Your task to perform on an android device: Is it going to rain tomorrow? Image 0: 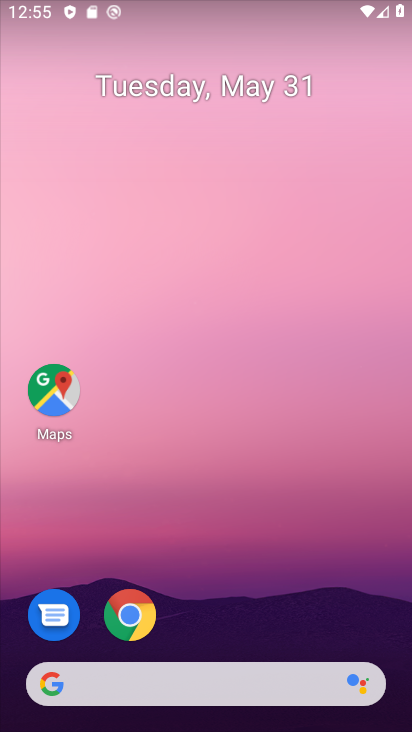
Step 0: drag from (321, 600) to (273, 152)
Your task to perform on an android device: Is it going to rain tomorrow? Image 1: 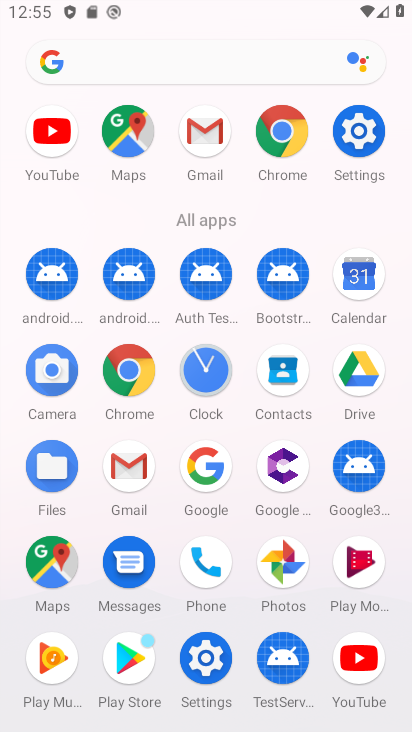
Step 1: click (123, 370)
Your task to perform on an android device: Is it going to rain tomorrow? Image 2: 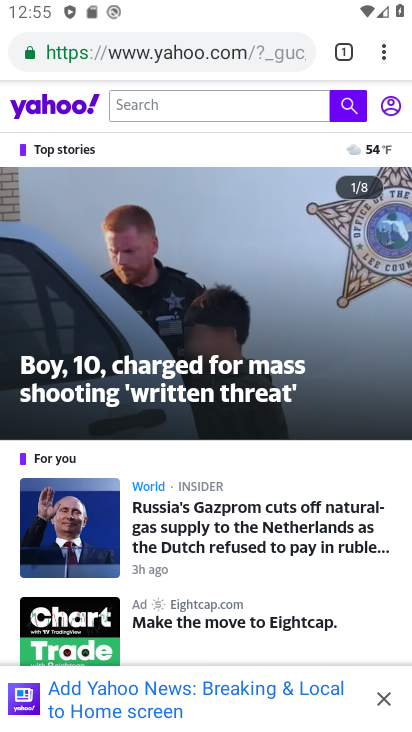
Step 2: click (179, 49)
Your task to perform on an android device: Is it going to rain tomorrow? Image 3: 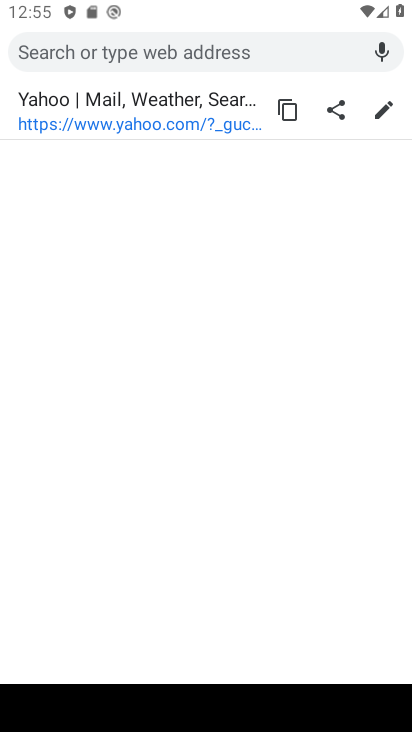
Step 3: type "is it going to rain tomorrow "
Your task to perform on an android device: Is it going to rain tomorrow? Image 4: 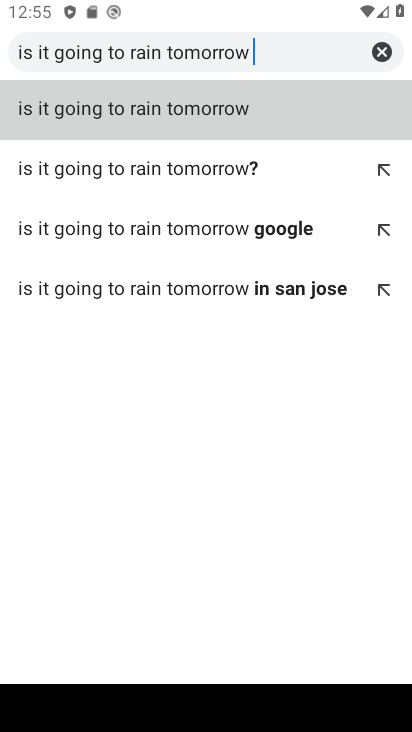
Step 4: click (158, 110)
Your task to perform on an android device: Is it going to rain tomorrow? Image 5: 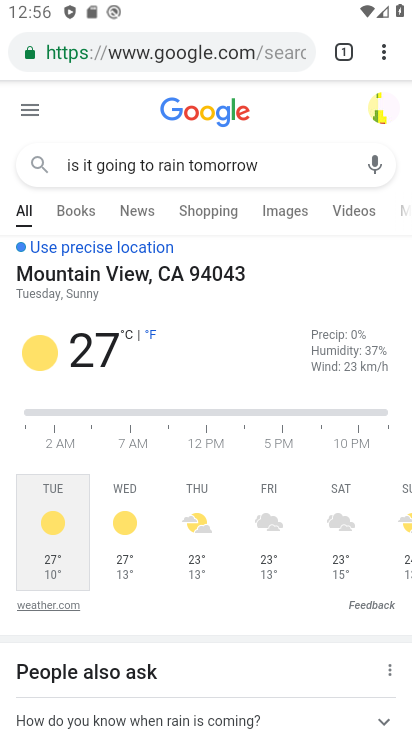
Step 5: task complete